Your task to perform on an android device: What is the recent news? Image 0: 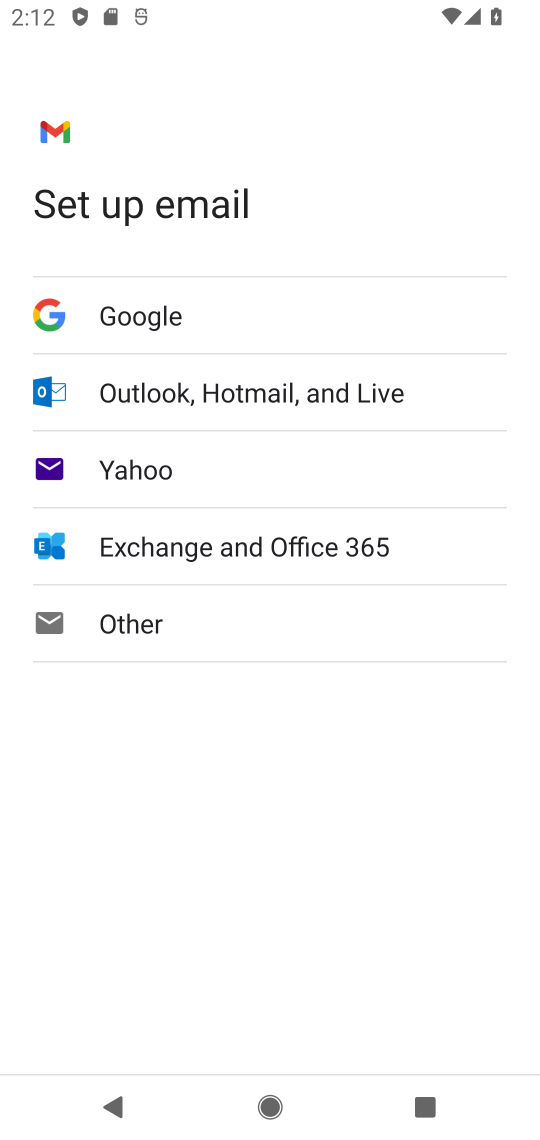
Step 0: press home button
Your task to perform on an android device: What is the recent news? Image 1: 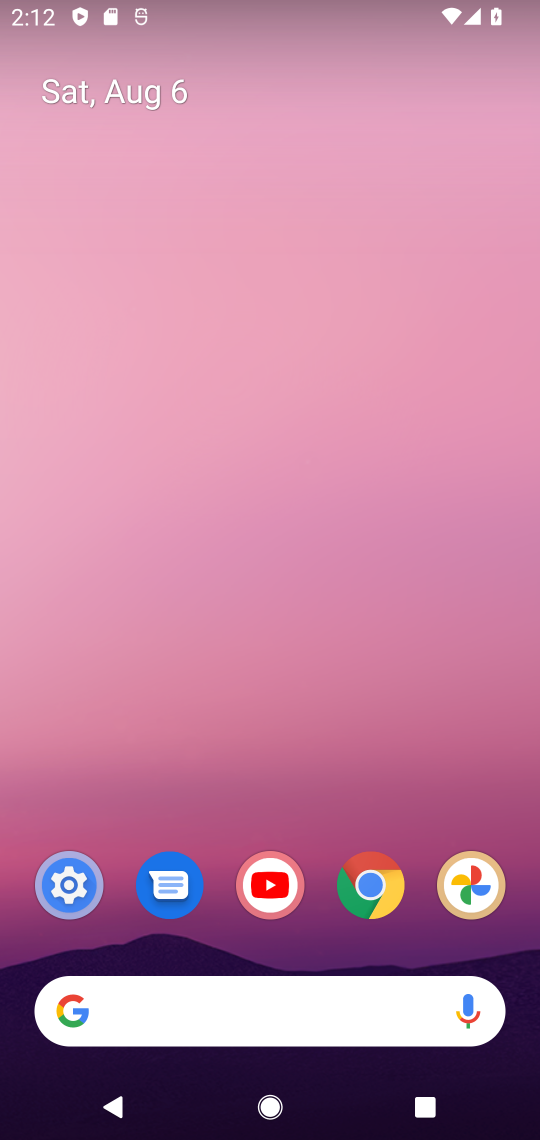
Step 1: drag from (520, 927) to (234, 0)
Your task to perform on an android device: What is the recent news? Image 2: 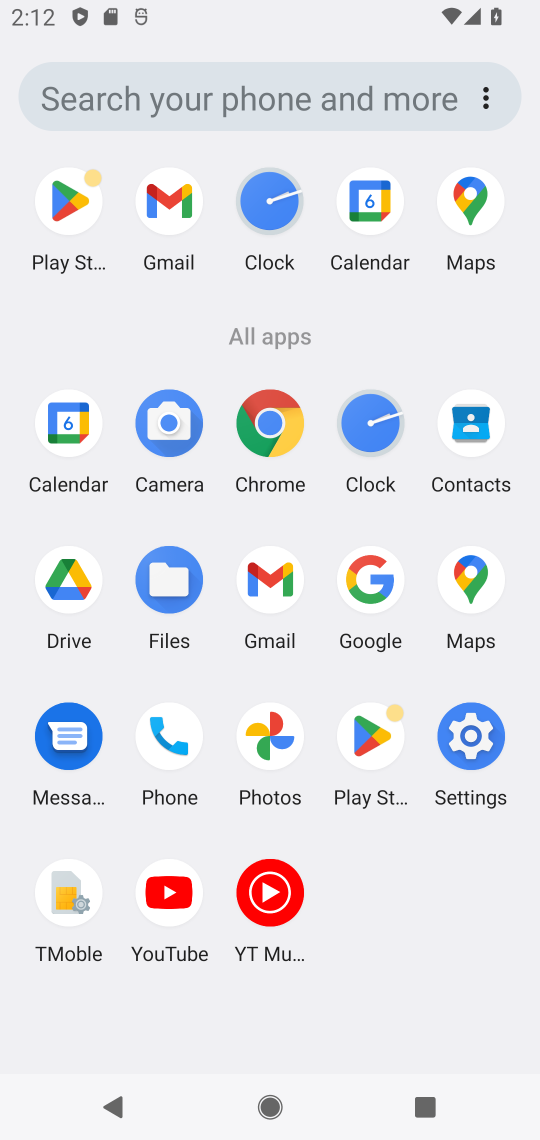
Step 2: click (359, 584)
Your task to perform on an android device: What is the recent news? Image 3: 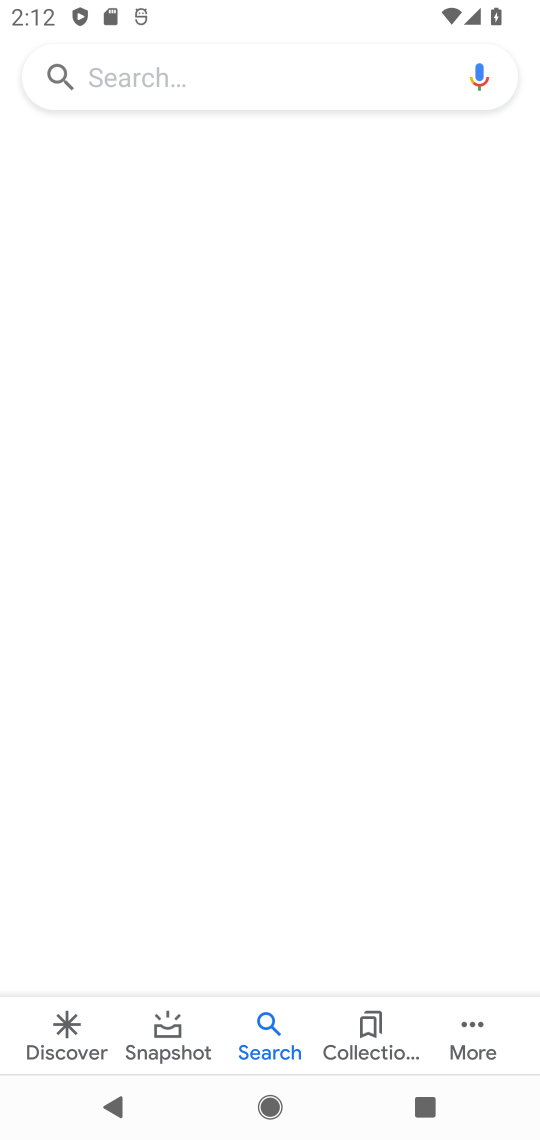
Step 3: click (125, 70)
Your task to perform on an android device: What is the recent news? Image 4: 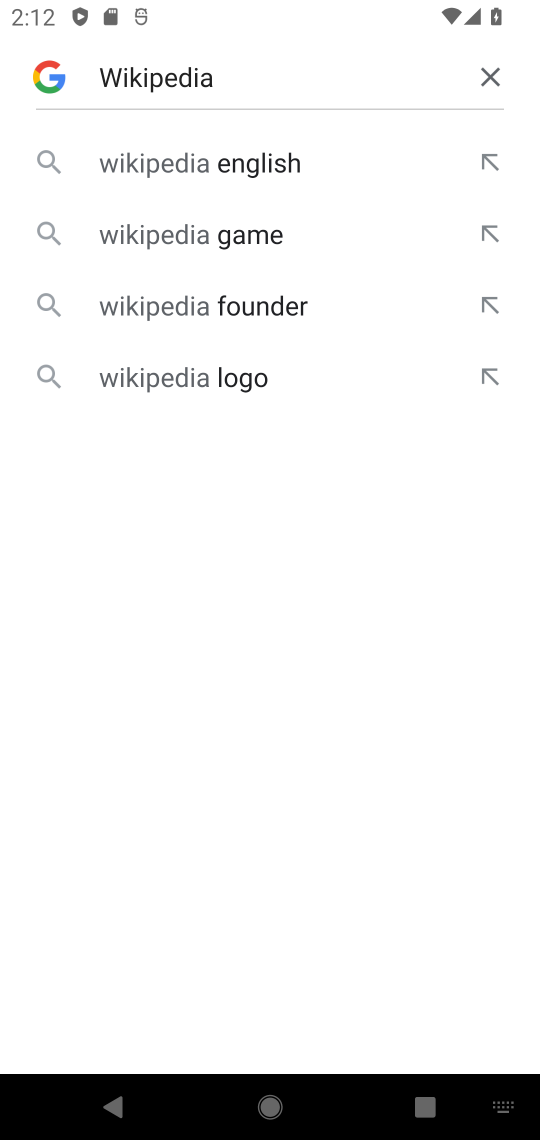
Step 4: click (489, 72)
Your task to perform on an android device: What is the recent news? Image 5: 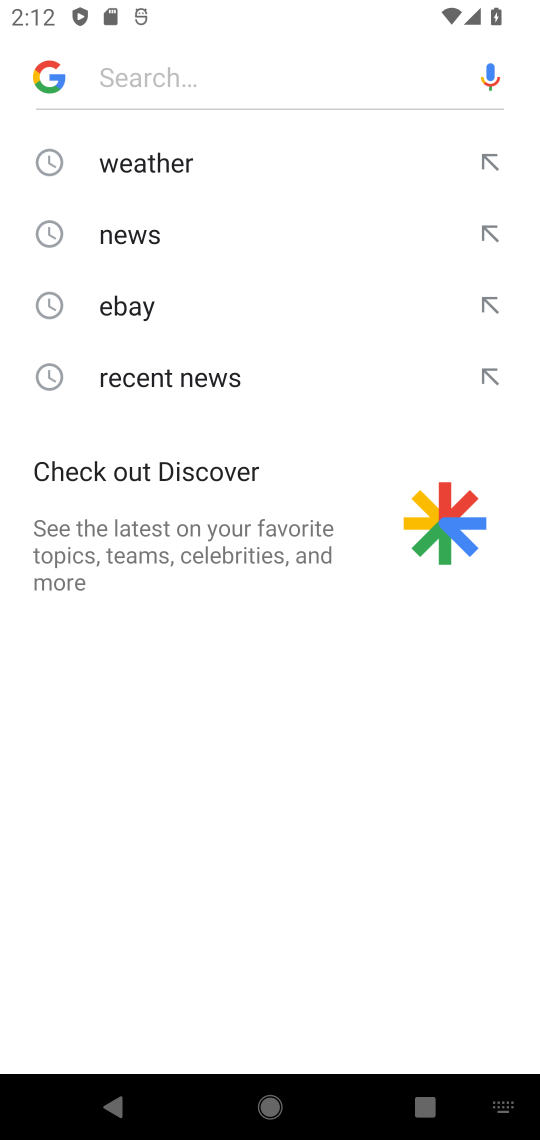
Step 5: type "What is the recent news?"
Your task to perform on an android device: What is the recent news? Image 6: 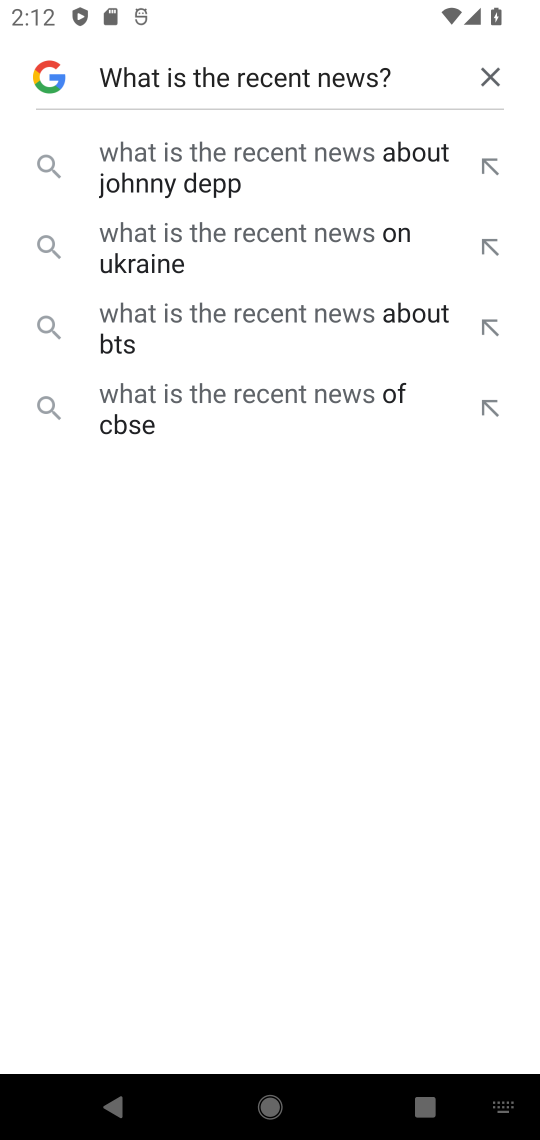
Step 6: task complete